Your task to perform on an android device: Go to Android settings Image 0: 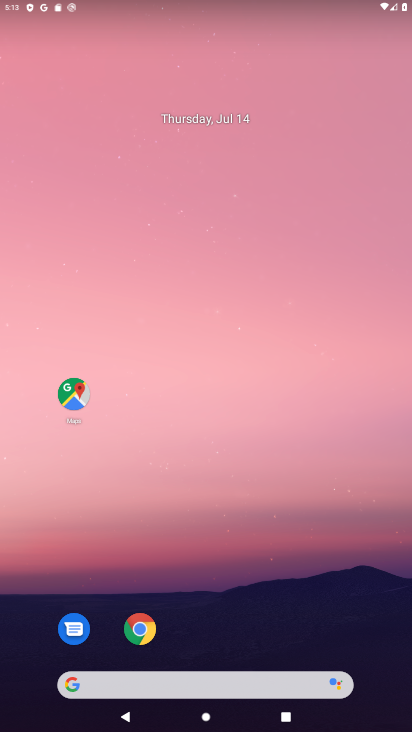
Step 0: drag from (249, 556) to (307, 32)
Your task to perform on an android device: Go to Android settings Image 1: 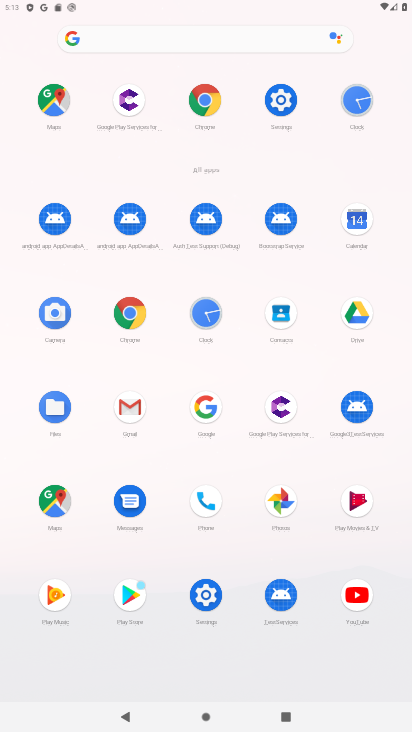
Step 1: click (285, 102)
Your task to perform on an android device: Go to Android settings Image 2: 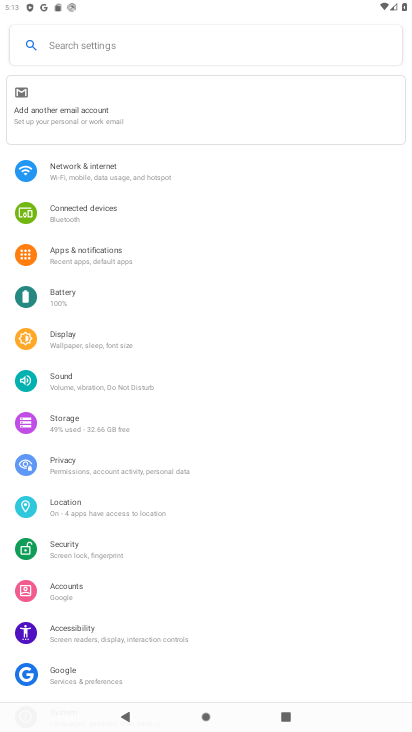
Step 2: drag from (158, 683) to (259, 133)
Your task to perform on an android device: Go to Android settings Image 3: 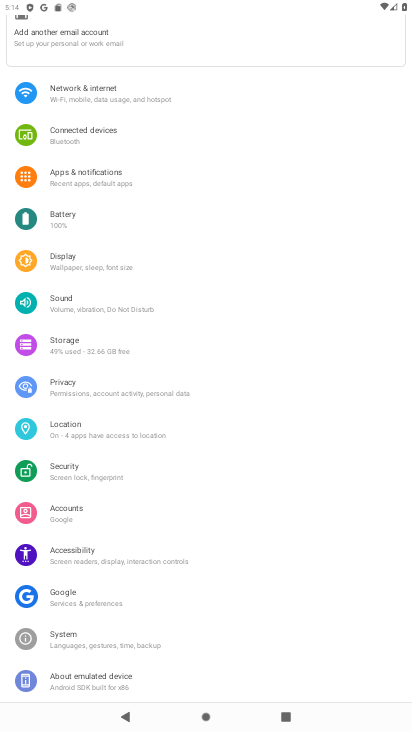
Step 3: click (136, 676)
Your task to perform on an android device: Go to Android settings Image 4: 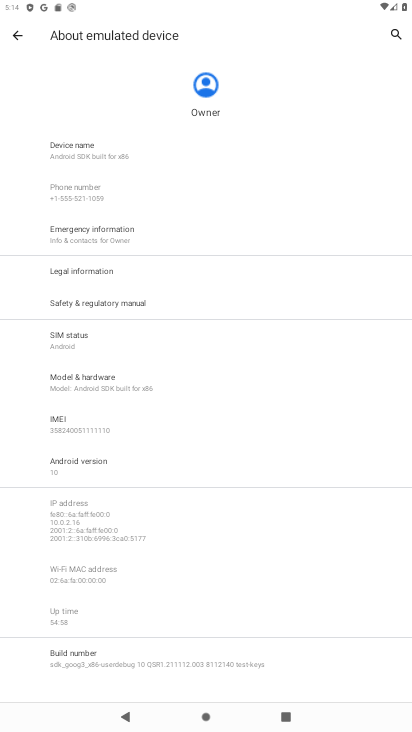
Step 4: task complete